Your task to perform on an android device: set the stopwatch Image 0: 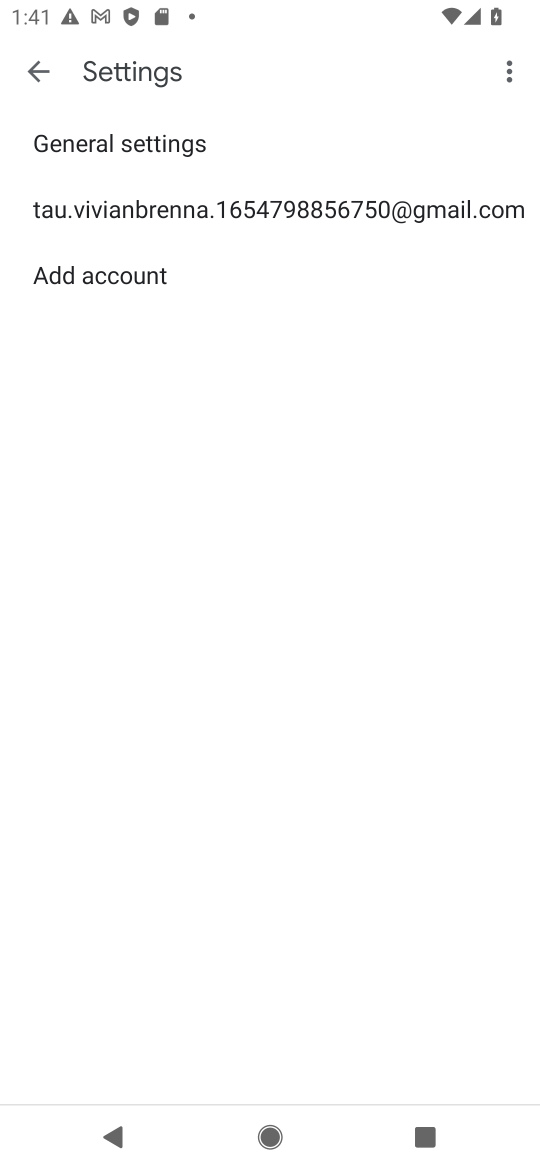
Step 0: press home button
Your task to perform on an android device: set the stopwatch Image 1: 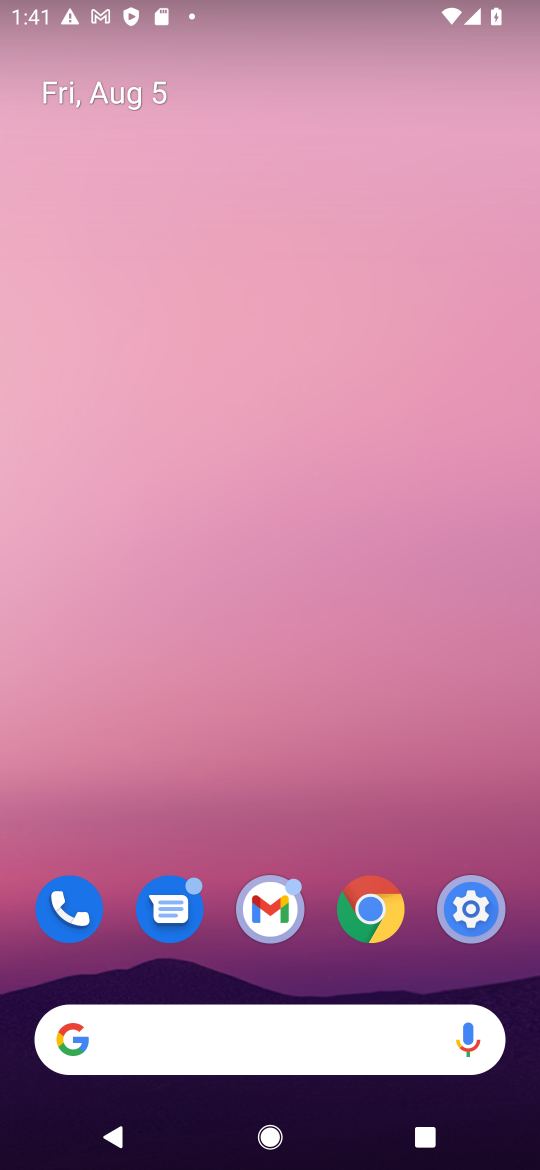
Step 1: drag from (249, 825) to (250, 123)
Your task to perform on an android device: set the stopwatch Image 2: 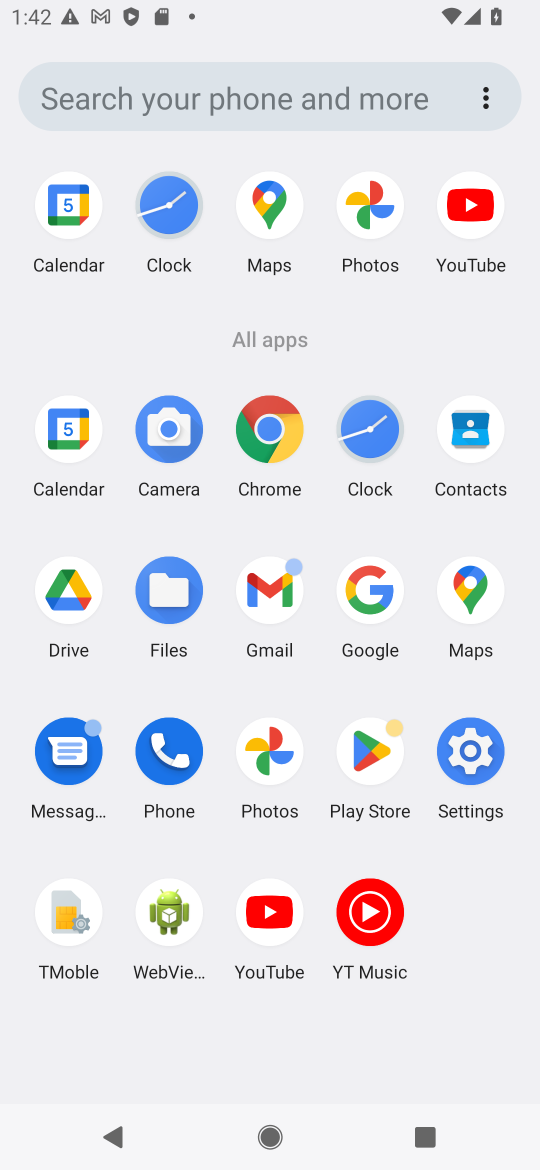
Step 2: click (162, 200)
Your task to perform on an android device: set the stopwatch Image 3: 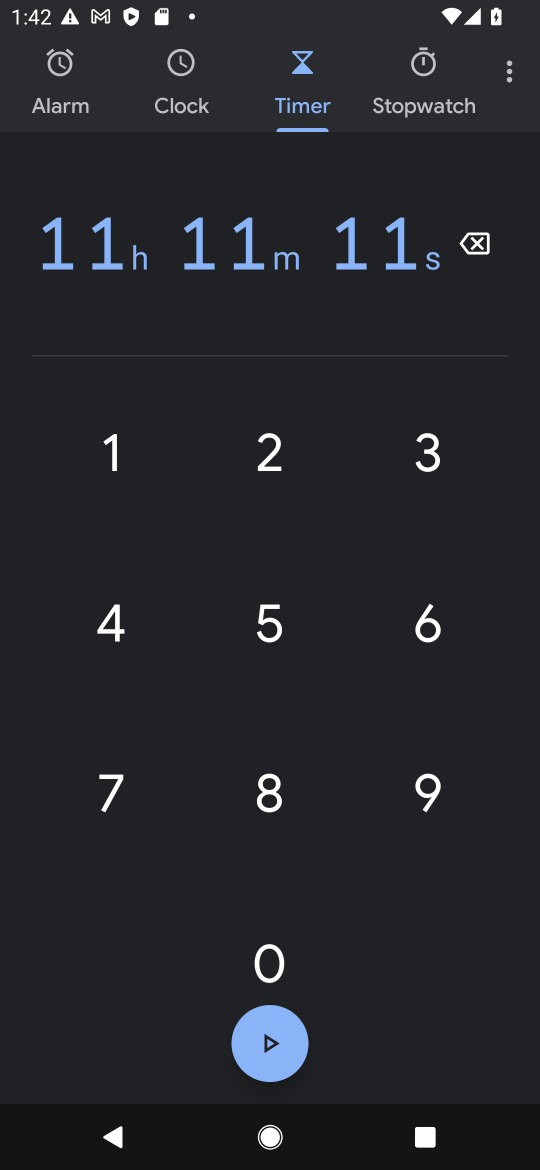
Step 3: click (427, 71)
Your task to perform on an android device: set the stopwatch Image 4: 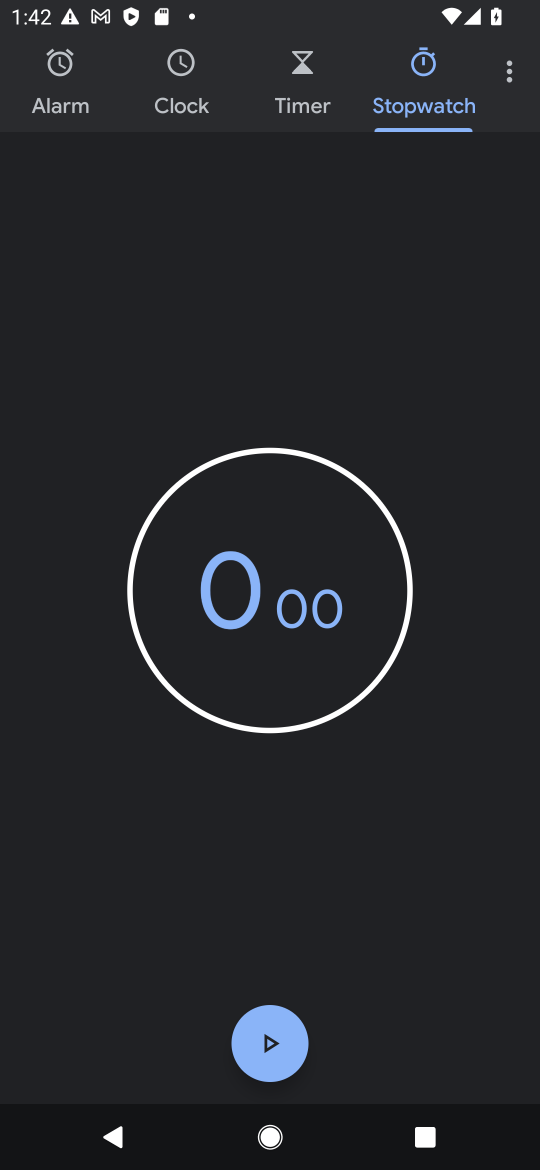
Step 4: task complete